Your task to perform on an android device: Open notification settings Image 0: 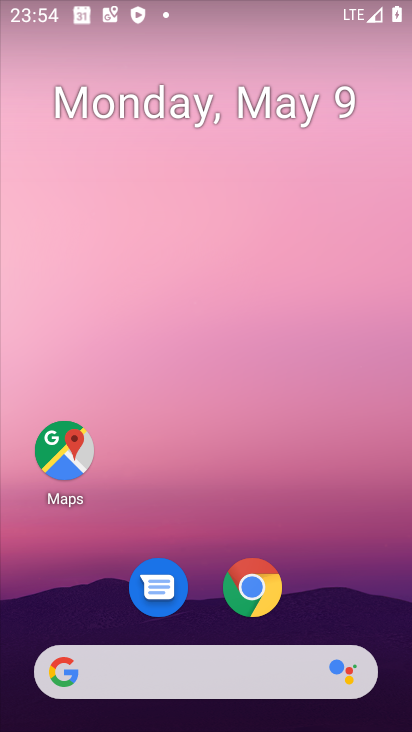
Step 0: drag from (204, 612) to (175, 84)
Your task to perform on an android device: Open notification settings Image 1: 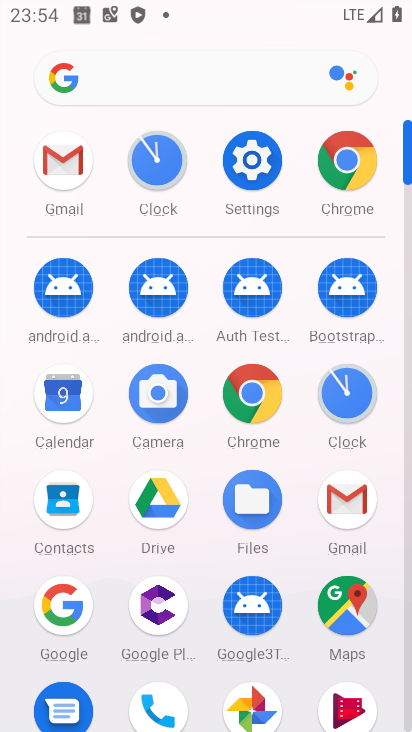
Step 1: click (259, 181)
Your task to perform on an android device: Open notification settings Image 2: 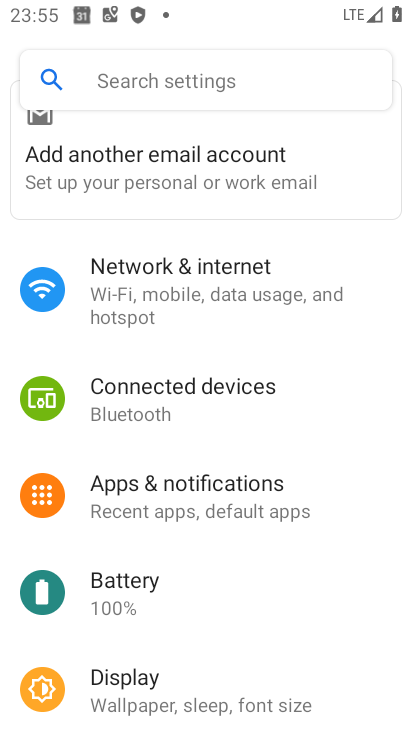
Step 2: click (232, 515)
Your task to perform on an android device: Open notification settings Image 3: 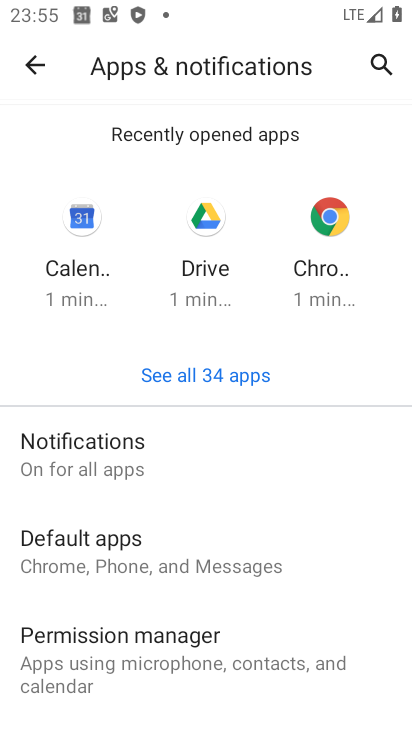
Step 3: task complete